Your task to perform on an android device: Open the stopwatch Image 0: 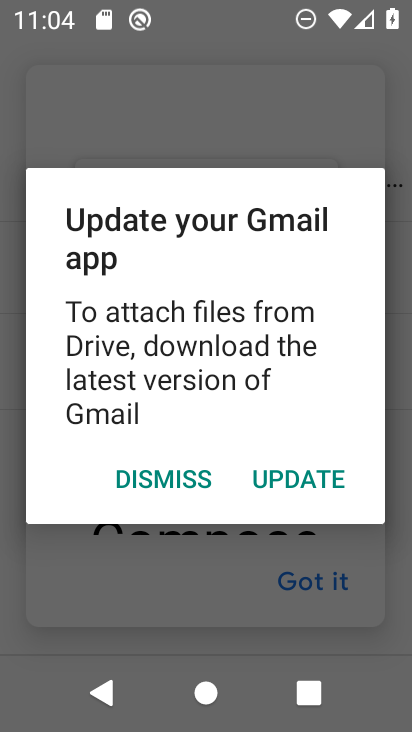
Step 0: press home button
Your task to perform on an android device: Open the stopwatch Image 1: 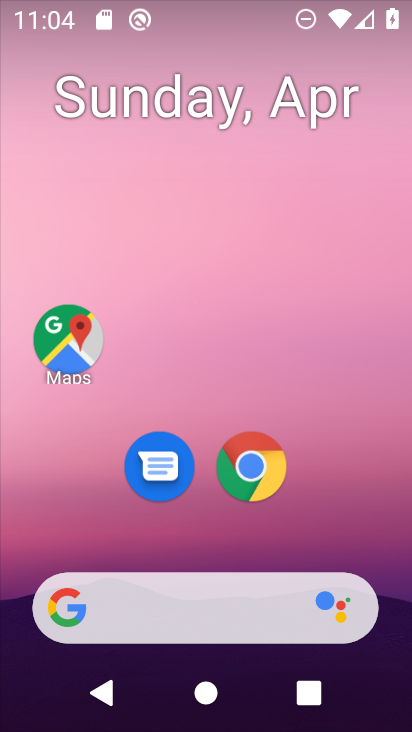
Step 1: drag from (354, 512) to (337, 70)
Your task to perform on an android device: Open the stopwatch Image 2: 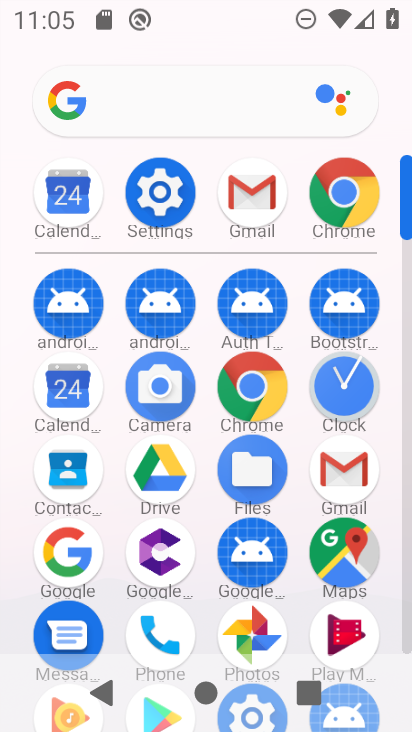
Step 2: click (359, 391)
Your task to perform on an android device: Open the stopwatch Image 3: 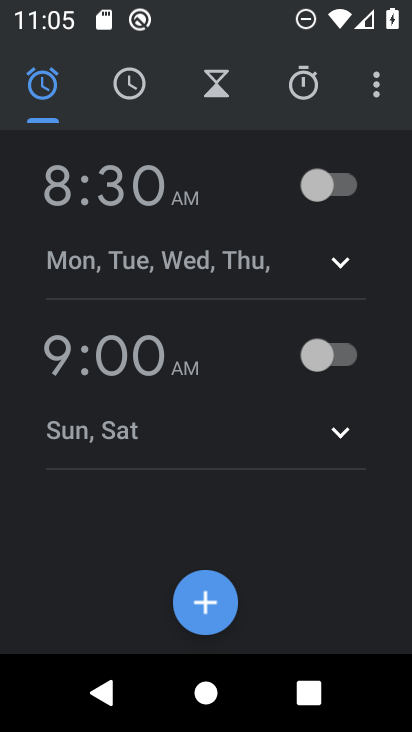
Step 3: click (310, 90)
Your task to perform on an android device: Open the stopwatch Image 4: 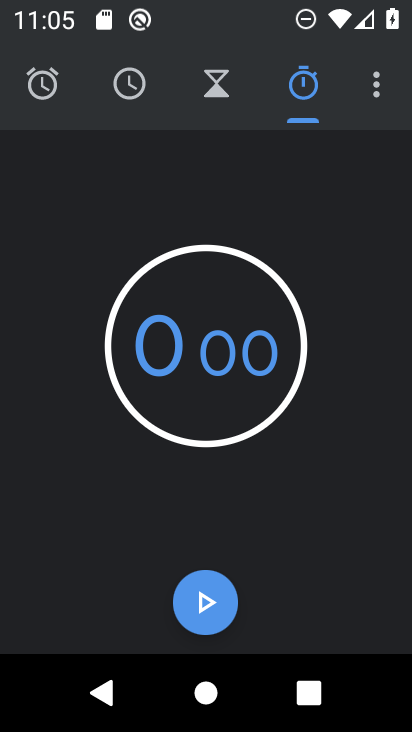
Step 4: task complete